Your task to perform on an android device: open a new tab in the chrome app Image 0: 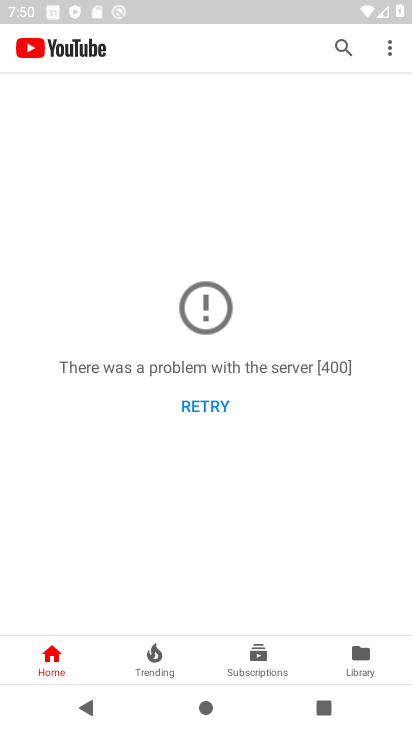
Step 0: press home button
Your task to perform on an android device: open a new tab in the chrome app Image 1: 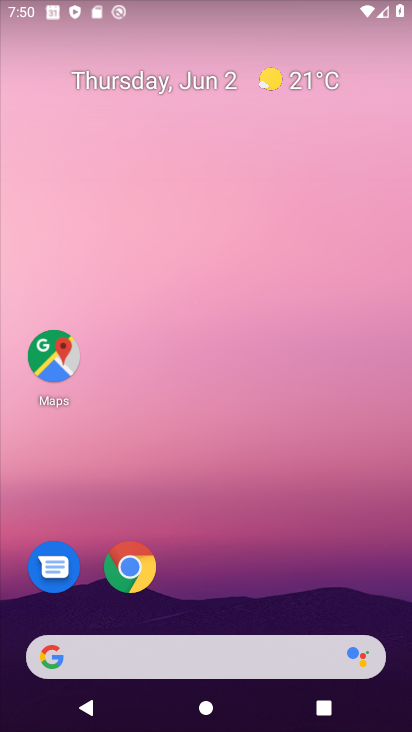
Step 1: click (130, 569)
Your task to perform on an android device: open a new tab in the chrome app Image 2: 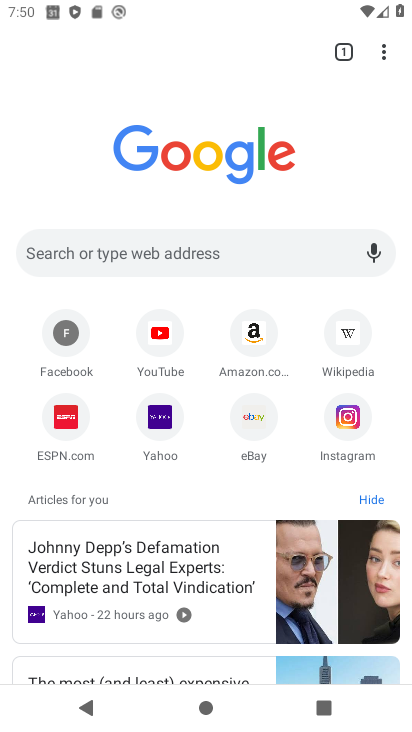
Step 2: click (381, 56)
Your task to perform on an android device: open a new tab in the chrome app Image 3: 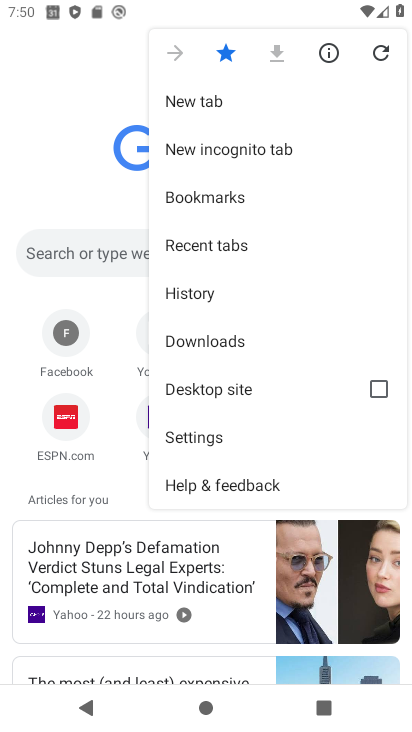
Step 3: click (187, 101)
Your task to perform on an android device: open a new tab in the chrome app Image 4: 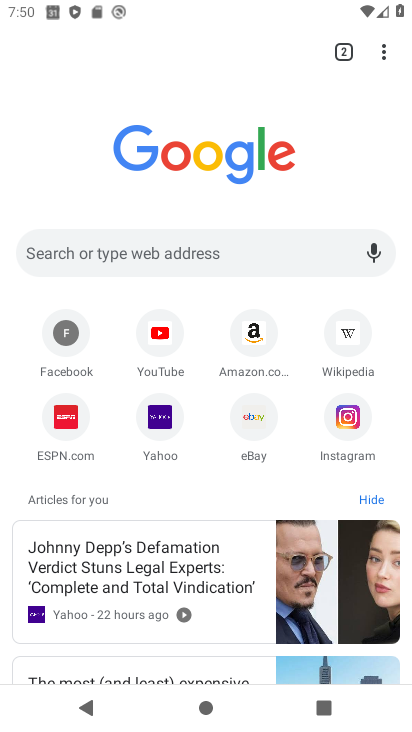
Step 4: task complete